Your task to perform on an android device: turn on sleep mode Image 0: 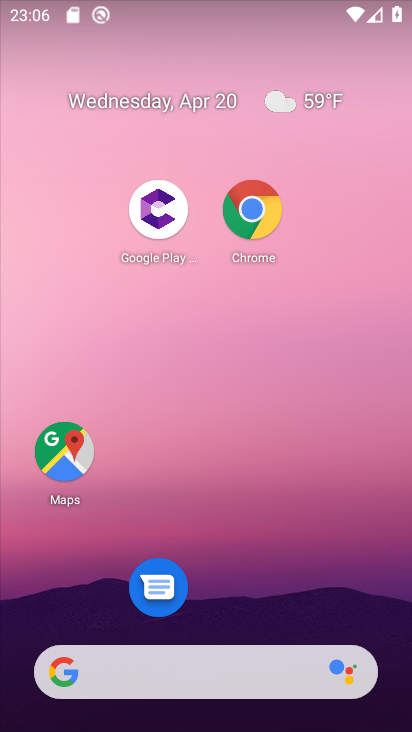
Step 0: drag from (241, 616) to (225, 77)
Your task to perform on an android device: turn on sleep mode Image 1: 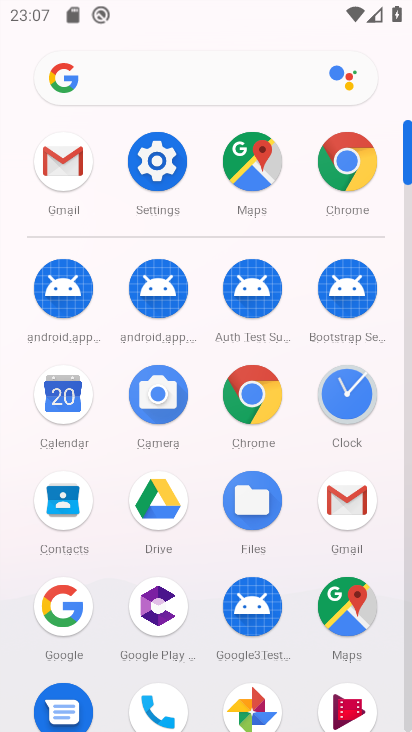
Step 1: click (155, 155)
Your task to perform on an android device: turn on sleep mode Image 2: 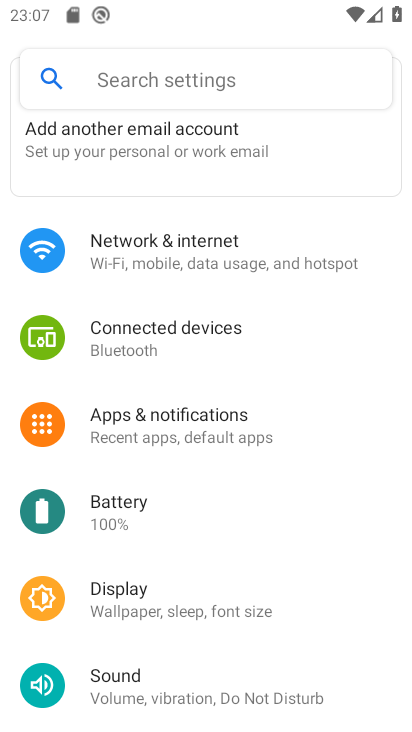
Step 2: click (177, 588)
Your task to perform on an android device: turn on sleep mode Image 3: 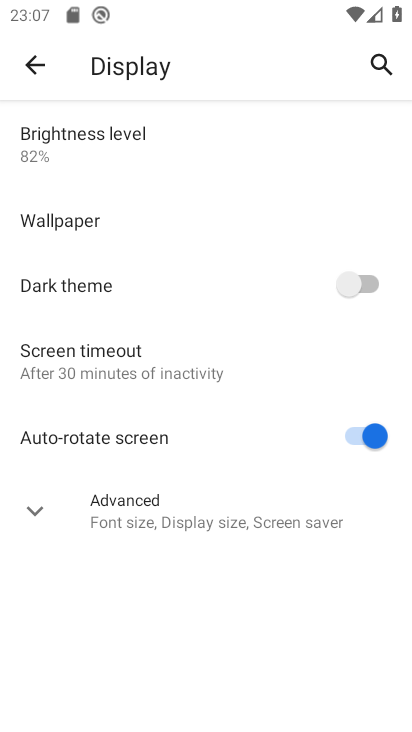
Step 3: click (38, 514)
Your task to perform on an android device: turn on sleep mode Image 4: 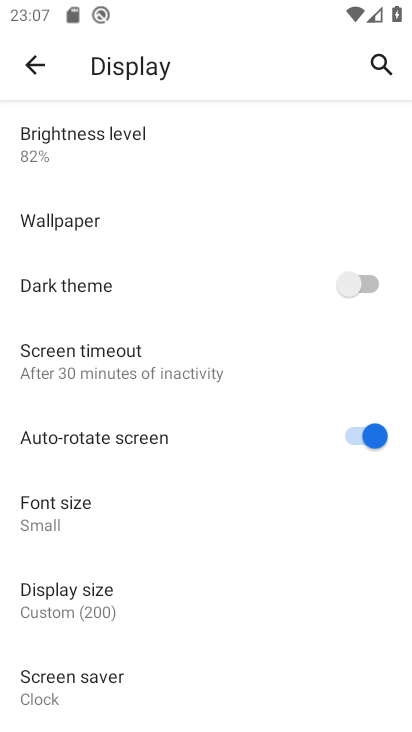
Step 4: task complete